Your task to perform on an android device: Go to sound settings Image 0: 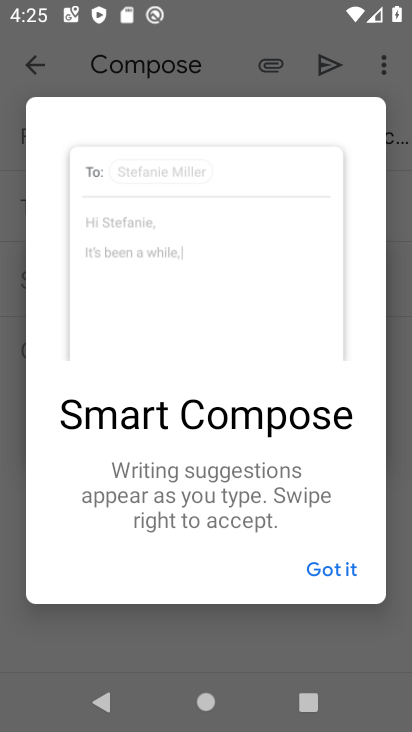
Step 0: press home button
Your task to perform on an android device: Go to sound settings Image 1: 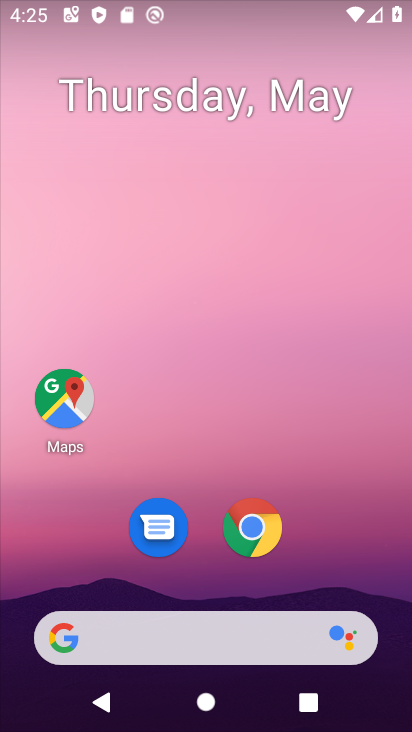
Step 1: drag from (336, 547) to (350, 55)
Your task to perform on an android device: Go to sound settings Image 2: 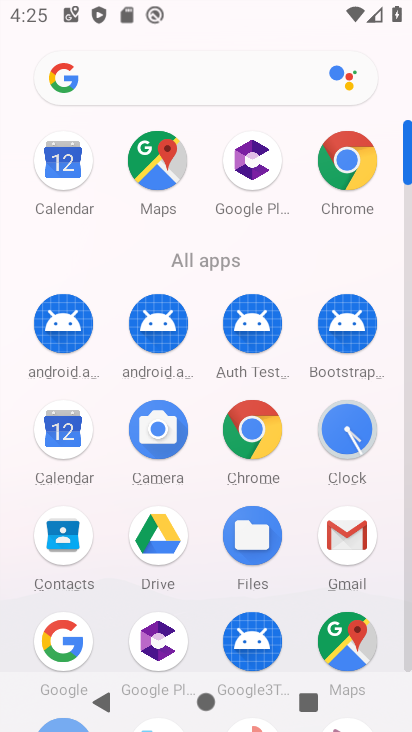
Step 2: click (322, 84)
Your task to perform on an android device: Go to sound settings Image 3: 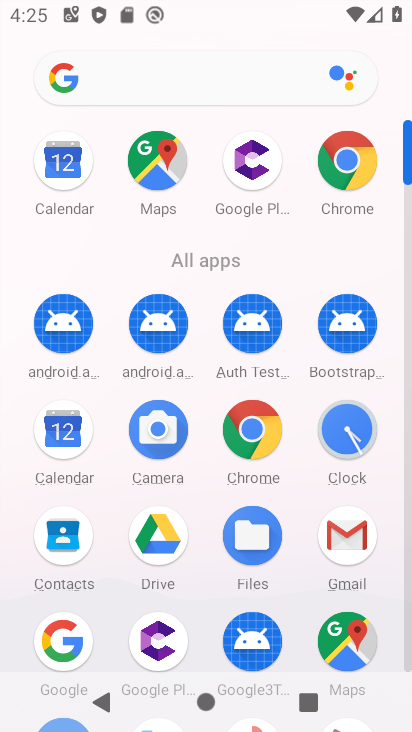
Step 3: drag from (383, 498) to (388, 245)
Your task to perform on an android device: Go to sound settings Image 4: 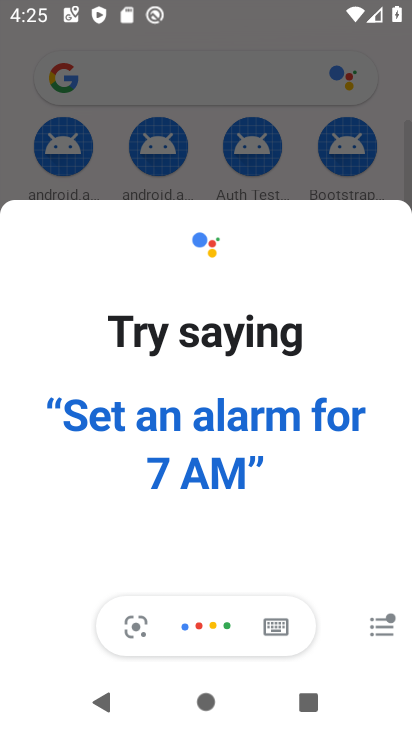
Step 4: click (108, 711)
Your task to perform on an android device: Go to sound settings Image 5: 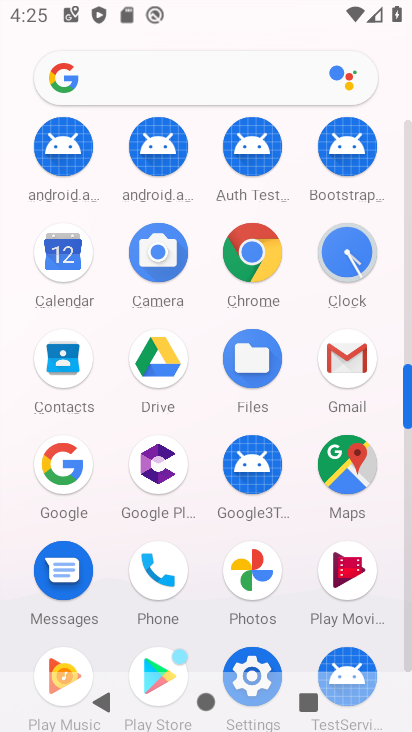
Step 5: drag from (387, 624) to (391, 290)
Your task to perform on an android device: Go to sound settings Image 6: 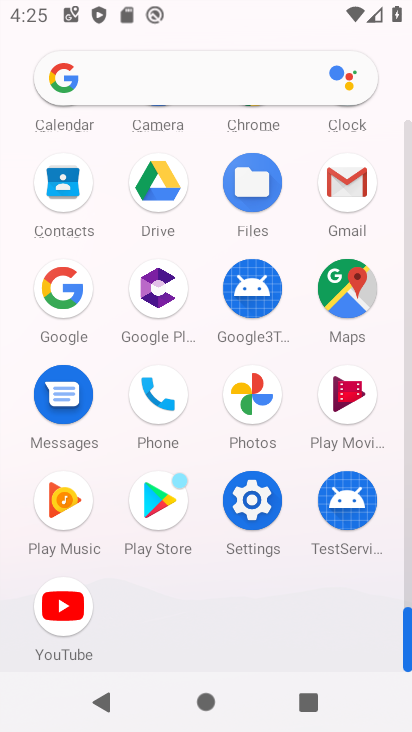
Step 6: click (265, 496)
Your task to perform on an android device: Go to sound settings Image 7: 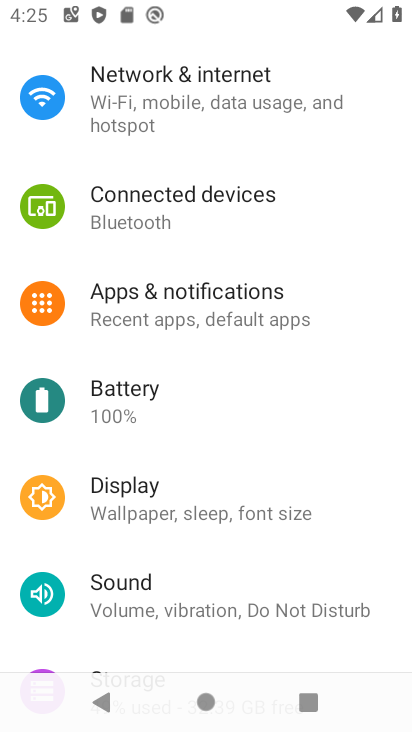
Step 7: drag from (175, 593) to (236, 86)
Your task to perform on an android device: Go to sound settings Image 8: 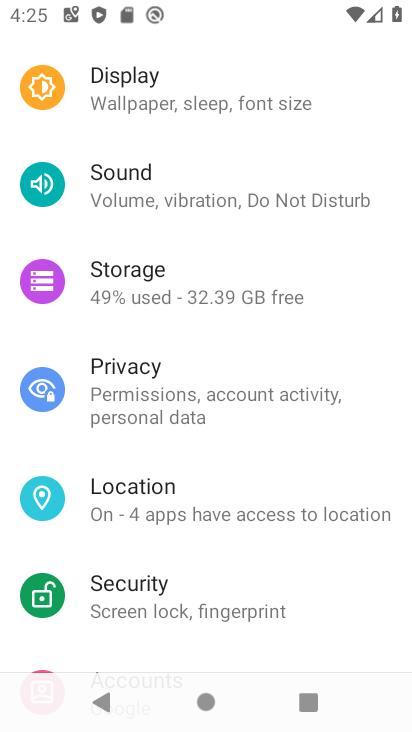
Step 8: click (122, 196)
Your task to perform on an android device: Go to sound settings Image 9: 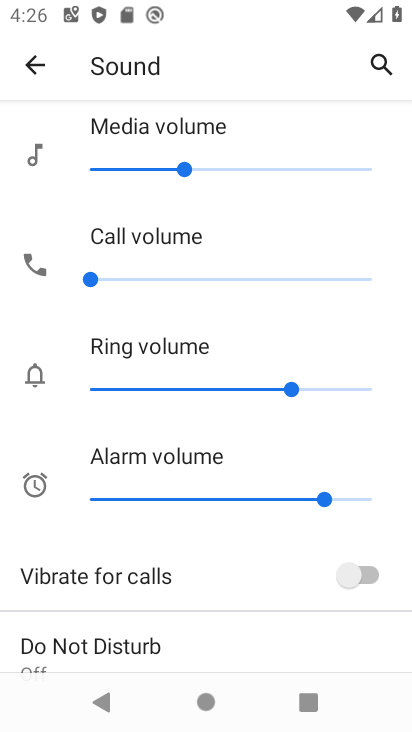
Step 9: task complete